Your task to perform on an android device: Go to accessibility settings Image 0: 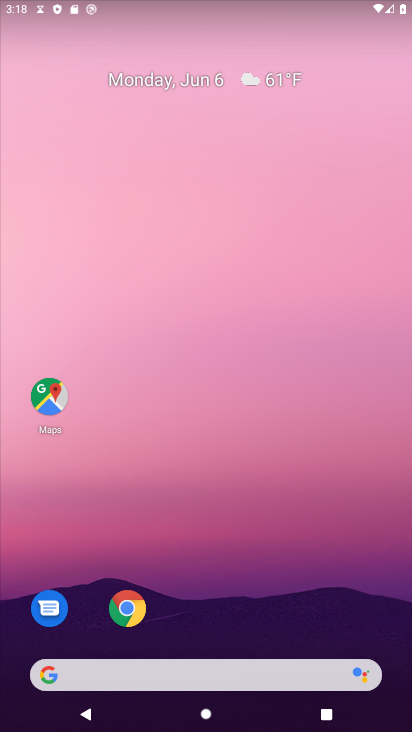
Step 0: drag from (202, 597) to (182, 26)
Your task to perform on an android device: Go to accessibility settings Image 1: 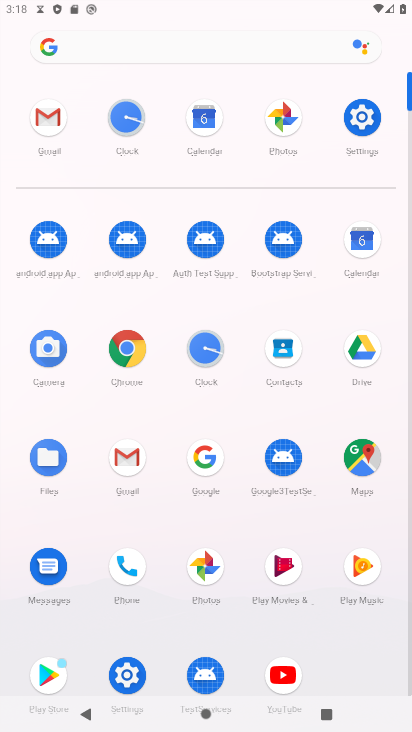
Step 1: click (362, 110)
Your task to perform on an android device: Go to accessibility settings Image 2: 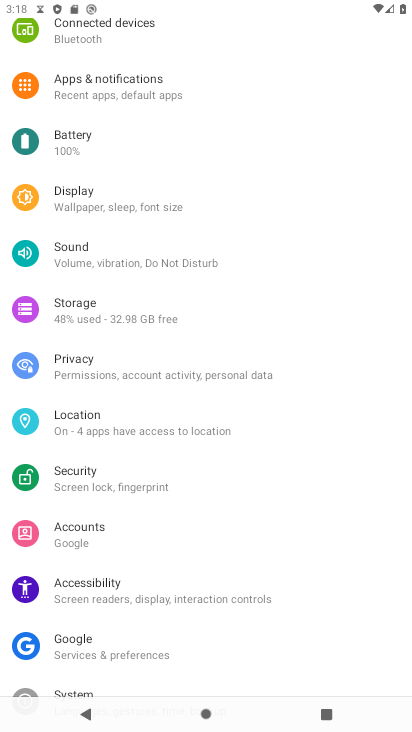
Step 2: click (119, 599)
Your task to perform on an android device: Go to accessibility settings Image 3: 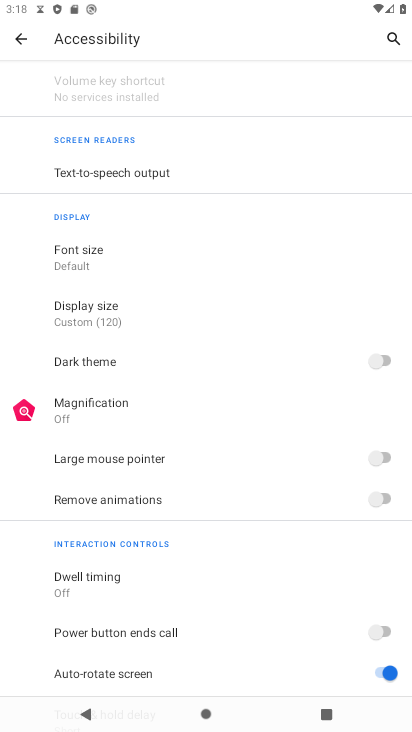
Step 3: task complete